Your task to perform on an android device: Search for seafood restaurants on Google Maps Image 0: 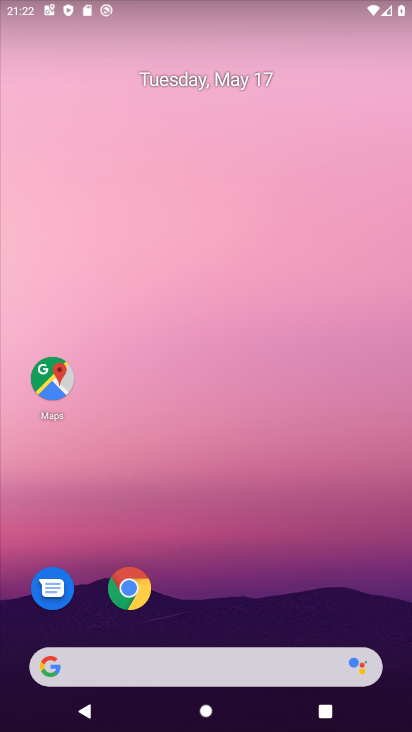
Step 0: drag from (193, 629) to (149, 38)
Your task to perform on an android device: Search for seafood restaurants on Google Maps Image 1: 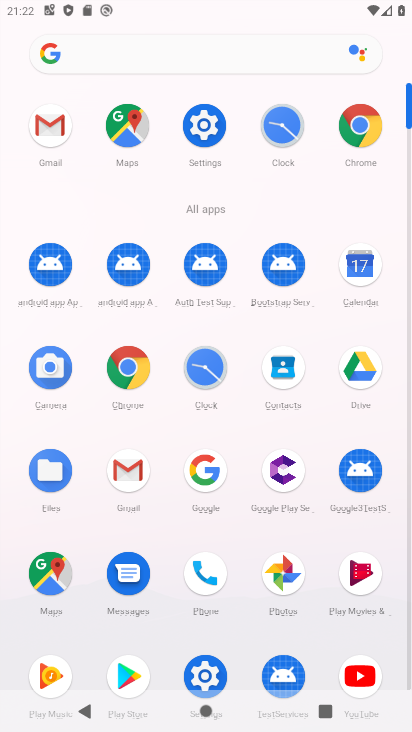
Step 1: click (42, 569)
Your task to perform on an android device: Search for seafood restaurants on Google Maps Image 2: 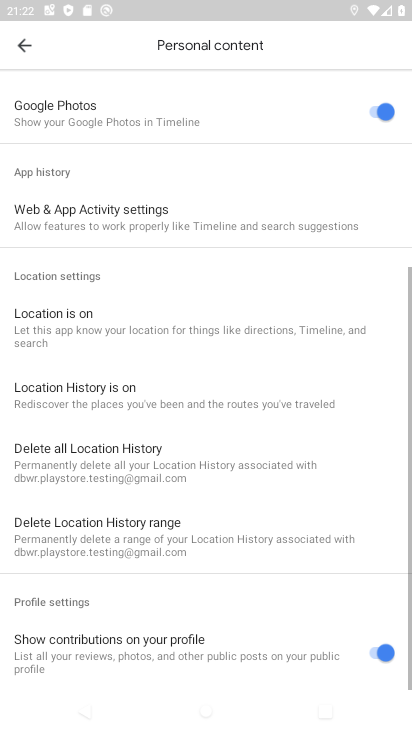
Step 2: click (19, 56)
Your task to perform on an android device: Search for seafood restaurants on Google Maps Image 3: 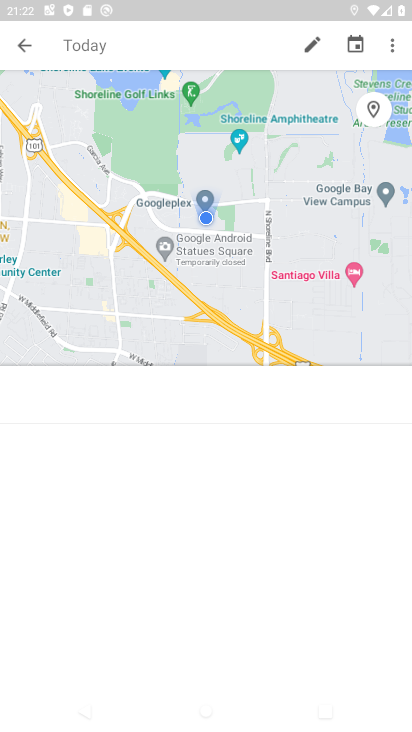
Step 3: click (19, 56)
Your task to perform on an android device: Search for seafood restaurants on Google Maps Image 4: 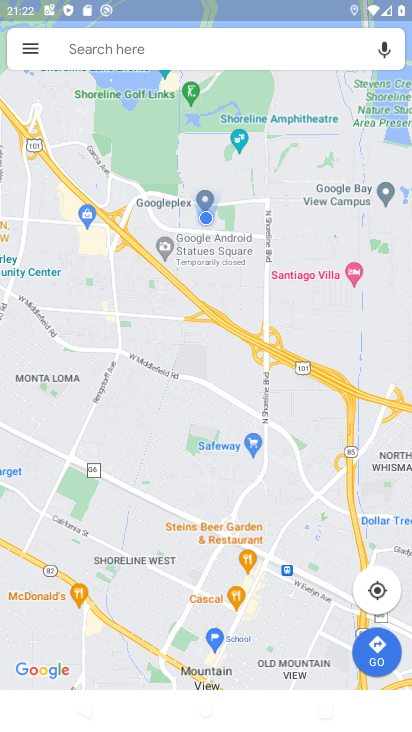
Step 4: click (122, 47)
Your task to perform on an android device: Search for seafood restaurants on Google Maps Image 5: 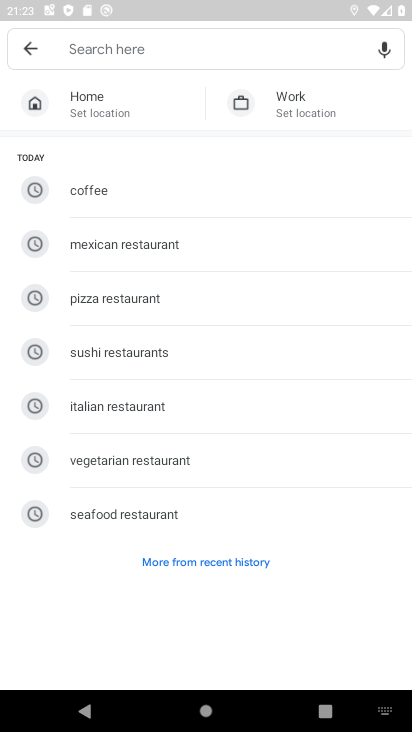
Step 5: click (138, 513)
Your task to perform on an android device: Search for seafood restaurants on Google Maps Image 6: 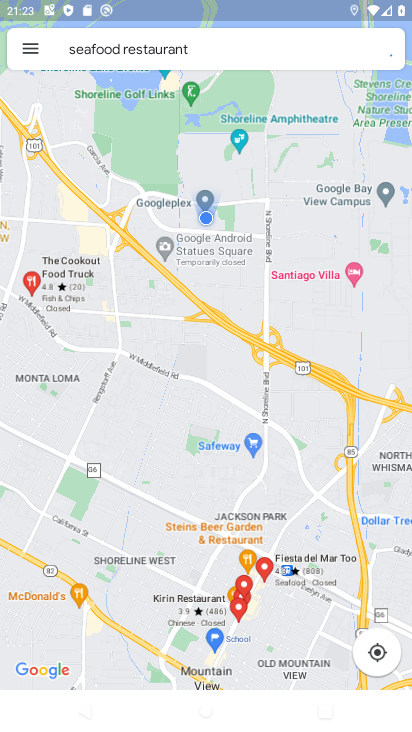
Step 6: task complete